Your task to perform on an android device: move a message to another label in the gmail app Image 0: 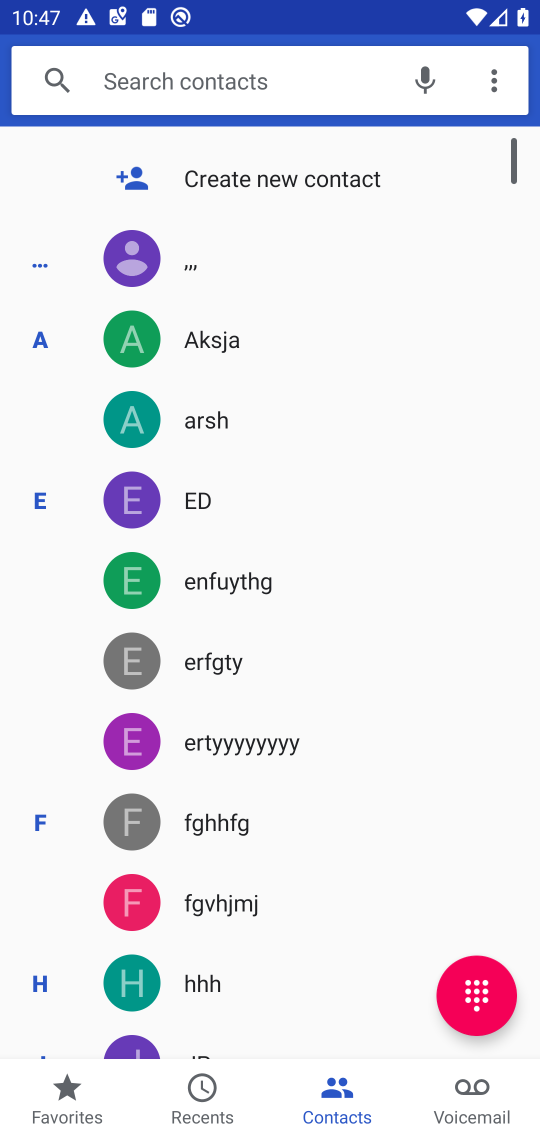
Step 0: press home button
Your task to perform on an android device: move a message to another label in the gmail app Image 1: 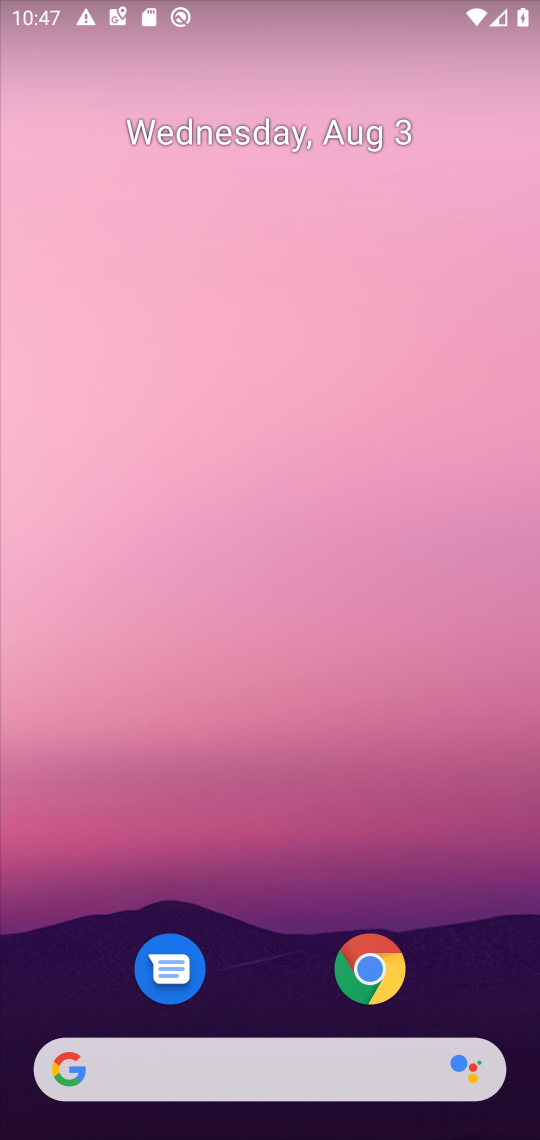
Step 1: drag from (295, 1015) to (371, 32)
Your task to perform on an android device: move a message to another label in the gmail app Image 2: 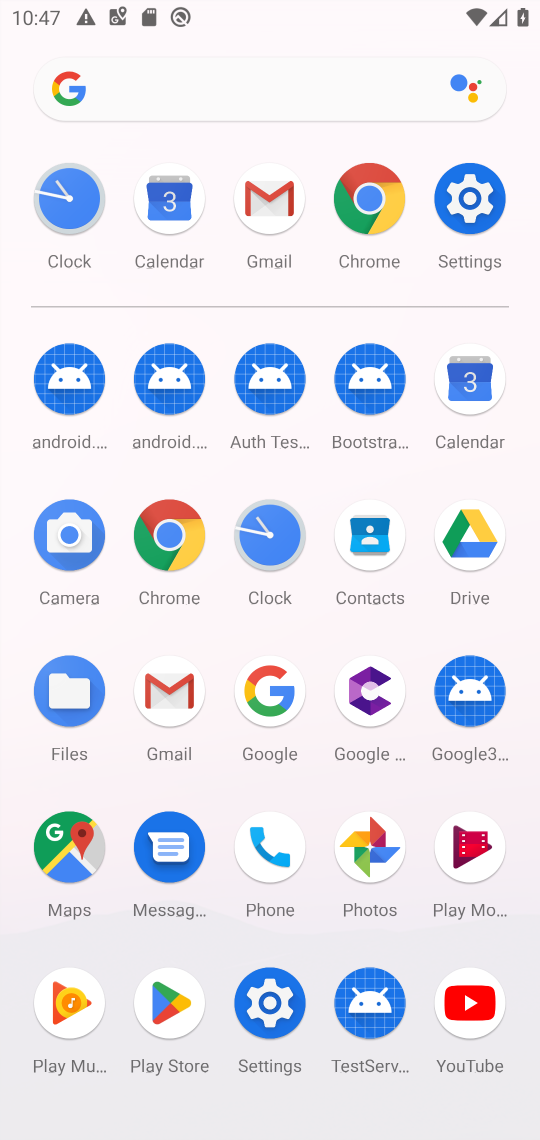
Step 2: click (174, 692)
Your task to perform on an android device: move a message to another label in the gmail app Image 3: 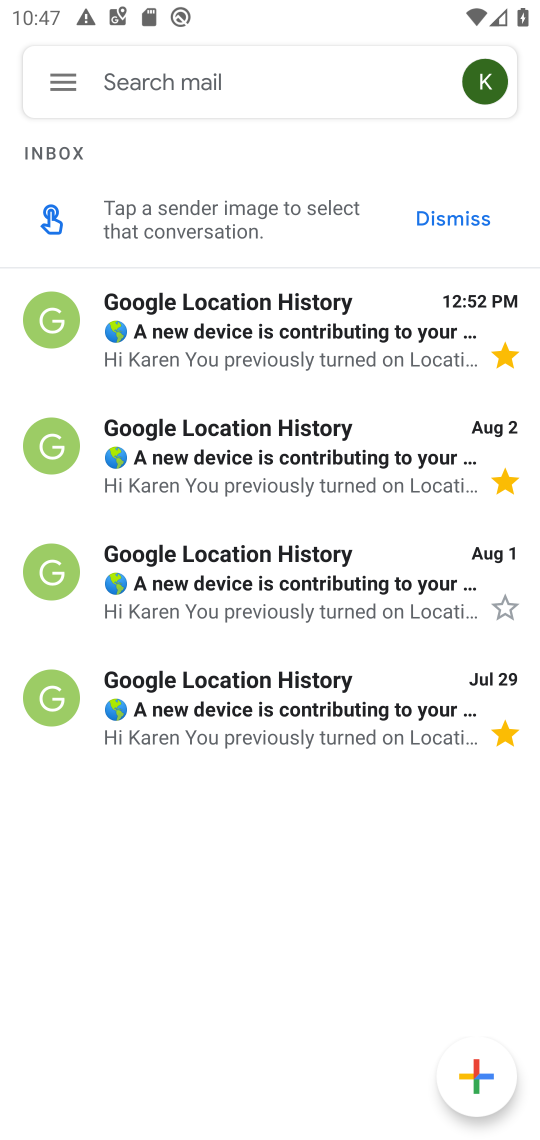
Step 3: click (238, 329)
Your task to perform on an android device: move a message to another label in the gmail app Image 4: 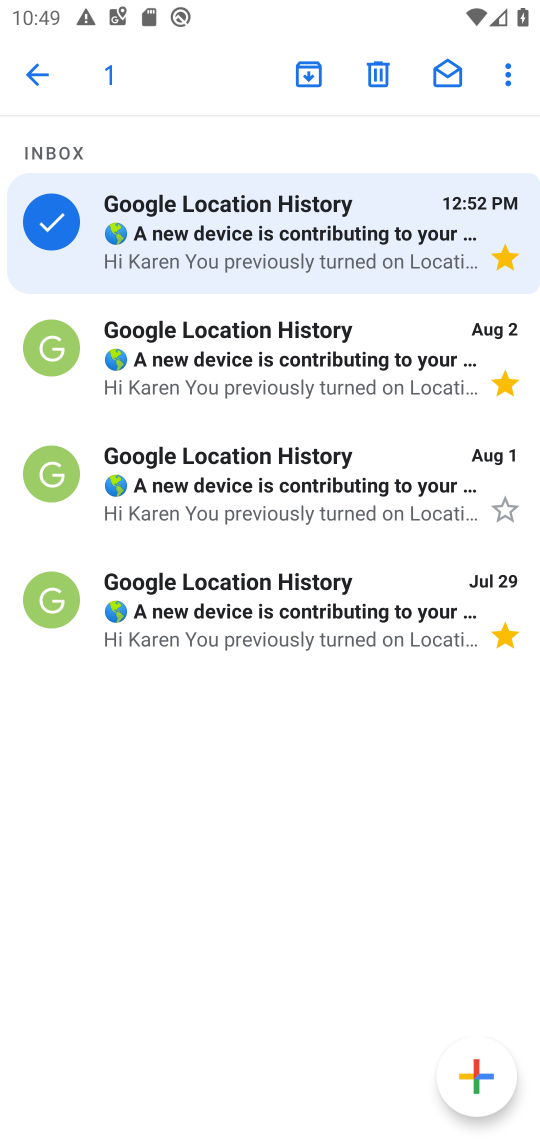
Step 4: click (501, 64)
Your task to perform on an android device: move a message to another label in the gmail app Image 5: 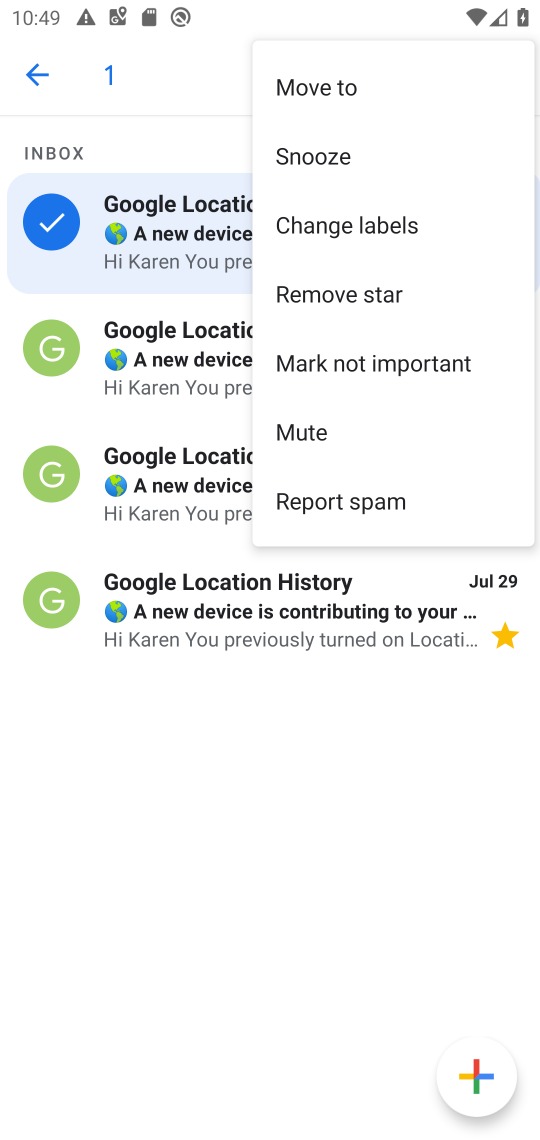
Step 5: click (319, 89)
Your task to perform on an android device: move a message to another label in the gmail app Image 6: 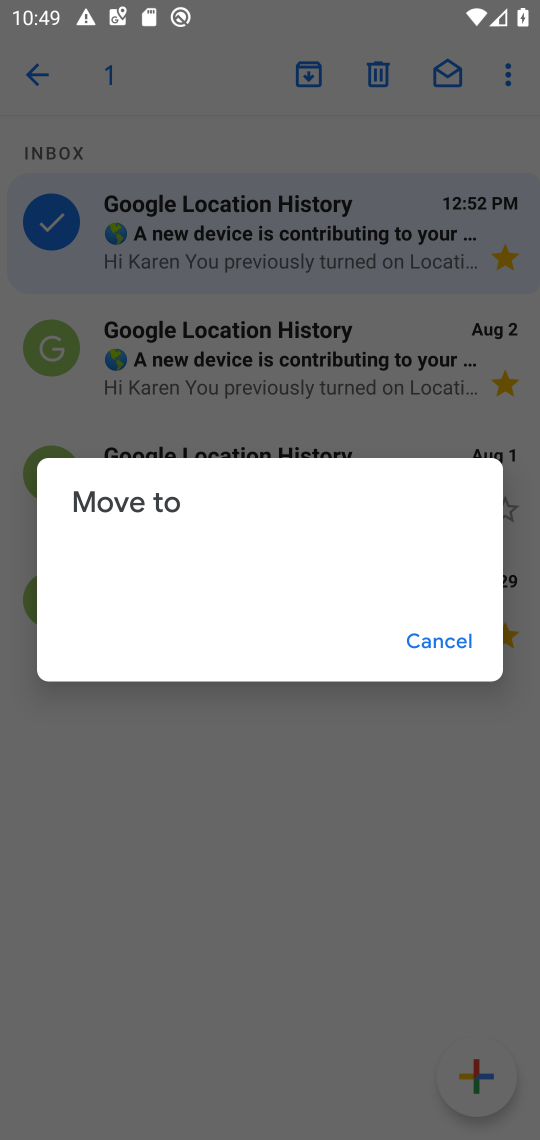
Step 6: task complete